Your task to perform on an android device: remove spam from my inbox in the gmail app Image 0: 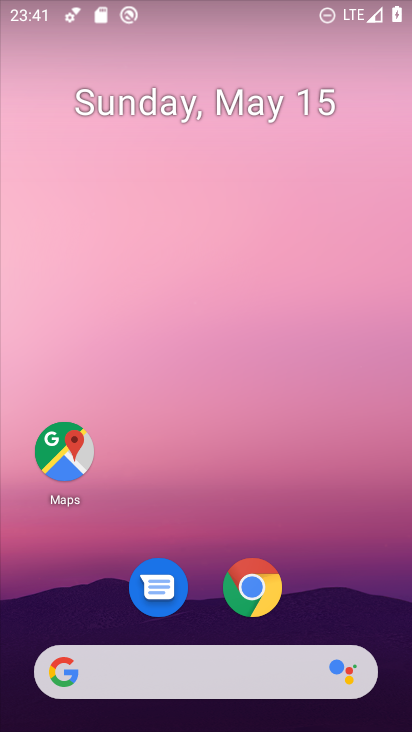
Step 0: drag from (193, 626) to (215, 199)
Your task to perform on an android device: remove spam from my inbox in the gmail app Image 1: 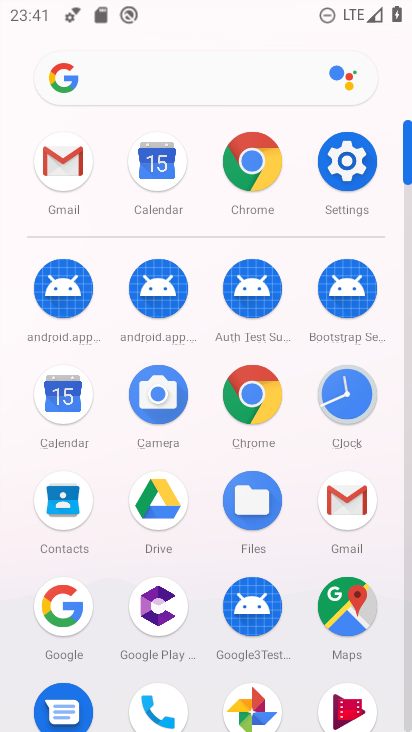
Step 1: click (73, 164)
Your task to perform on an android device: remove spam from my inbox in the gmail app Image 2: 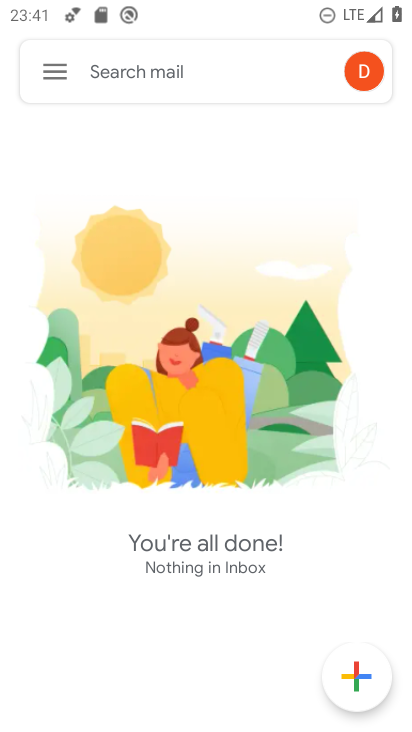
Step 2: click (49, 69)
Your task to perform on an android device: remove spam from my inbox in the gmail app Image 3: 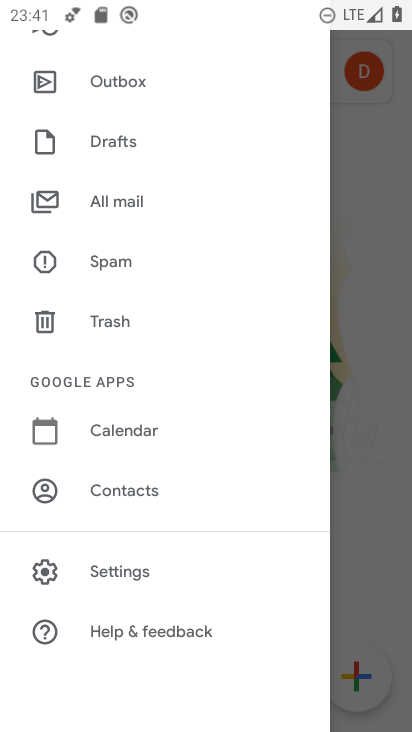
Step 3: click (49, 77)
Your task to perform on an android device: remove spam from my inbox in the gmail app Image 4: 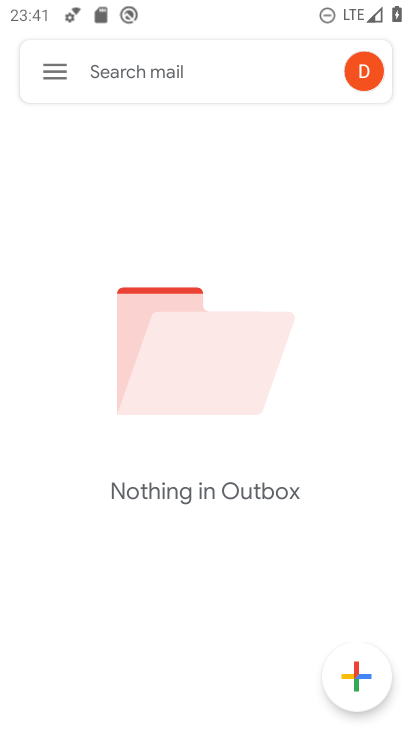
Step 4: click (58, 79)
Your task to perform on an android device: remove spam from my inbox in the gmail app Image 5: 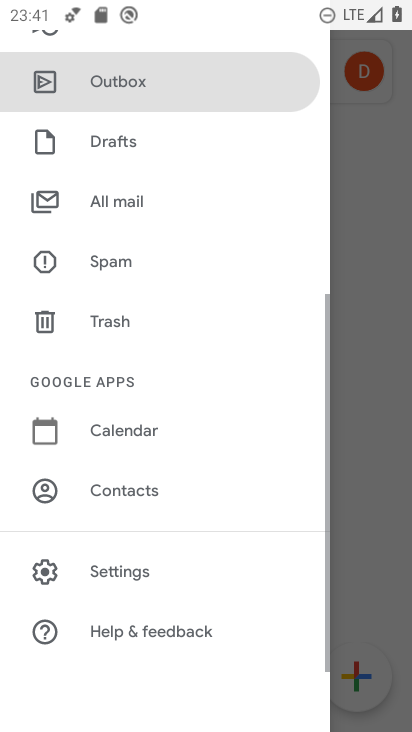
Step 5: click (122, 259)
Your task to perform on an android device: remove spam from my inbox in the gmail app Image 6: 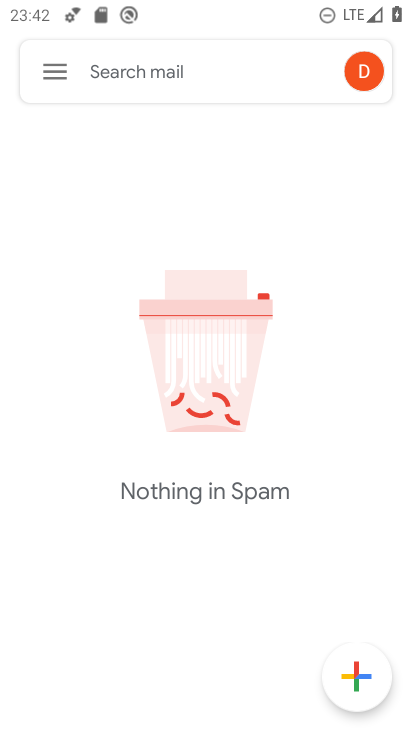
Step 6: task complete